Your task to perform on an android device: Open CNN.com Image 0: 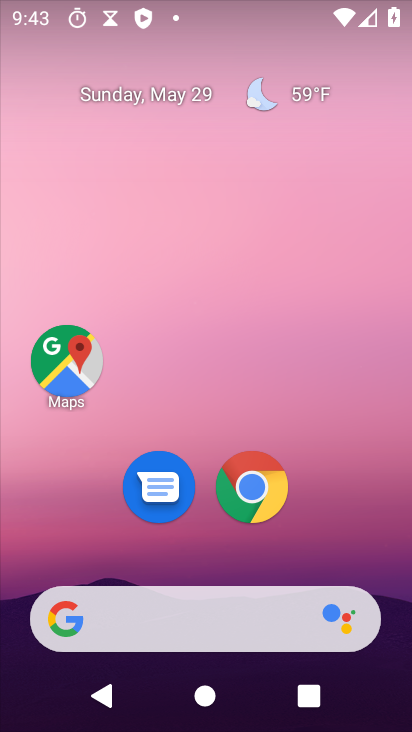
Step 0: click (252, 487)
Your task to perform on an android device: Open CNN.com Image 1: 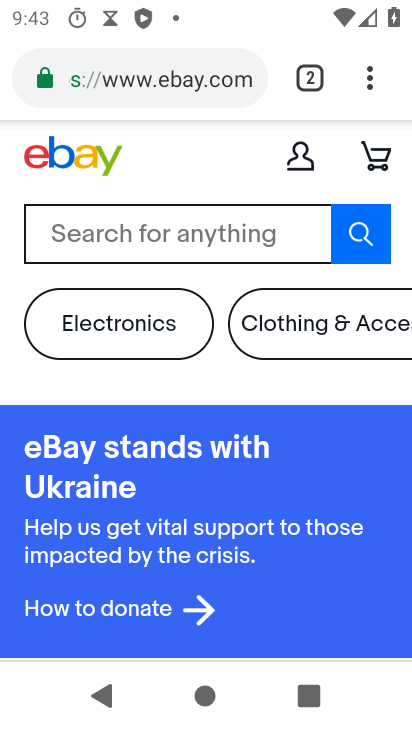
Step 1: click (221, 82)
Your task to perform on an android device: Open CNN.com Image 2: 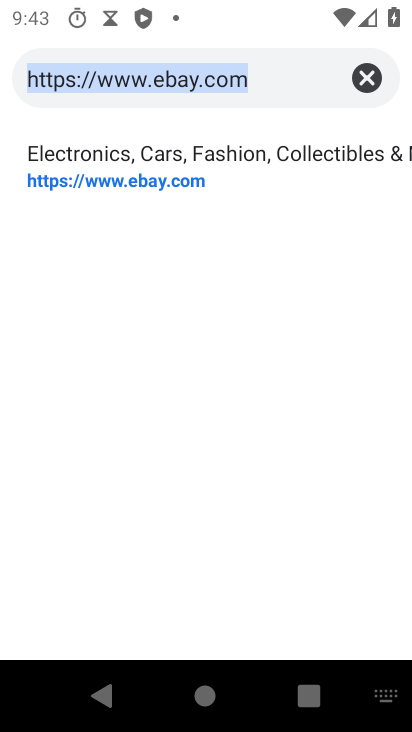
Step 2: click (367, 83)
Your task to perform on an android device: Open CNN.com Image 3: 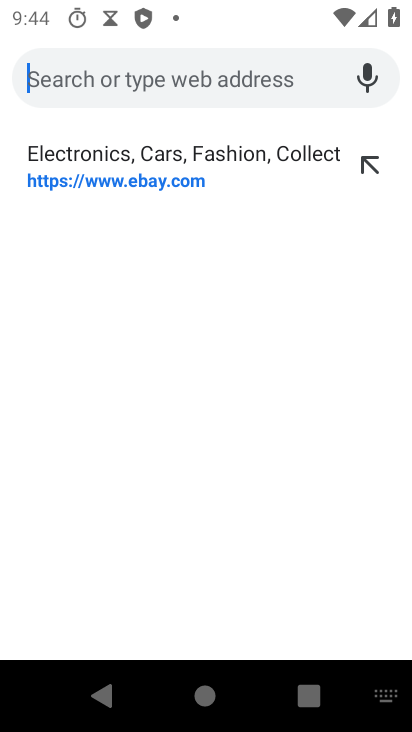
Step 3: type "CNN.com"
Your task to perform on an android device: Open CNN.com Image 4: 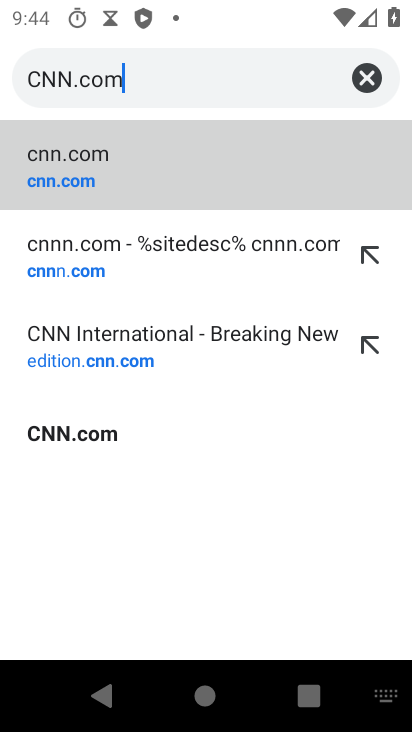
Step 4: click (83, 438)
Your task to perform on an android device: Open CNN.com Image 5: 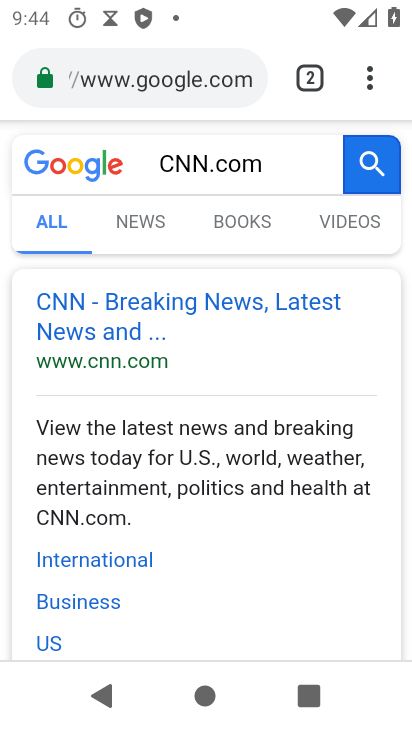
Step 5: click (113, 310)
Your task to perform on an android device: Open CNN.com Image 6: 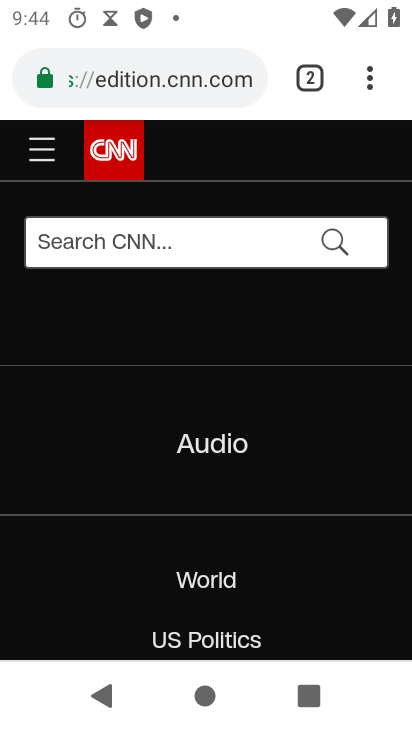
Step 6: task complete